Your task to perform on an android device: Search for seafood restaurants on Google Maps Image 0: 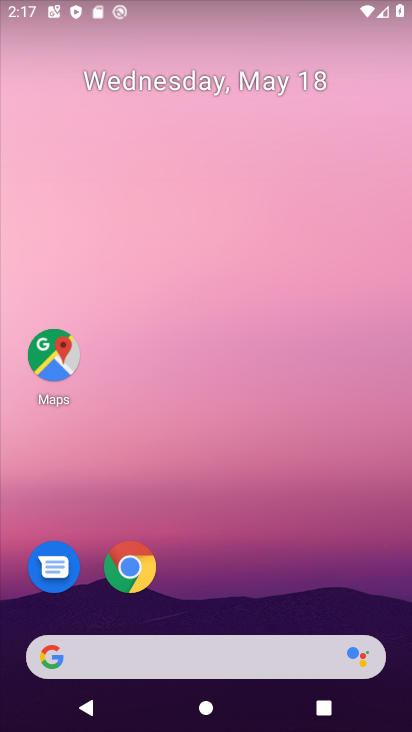
Step 0: click (53, 360)
Your task to perform on an android device: Search for seafood restaurants on Google Maps Image 1: 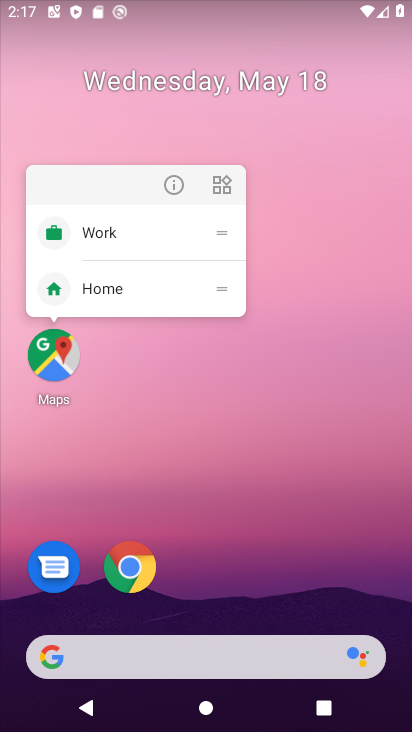
Step 1: click (53, 360)
Your task to perform on an android device: Search for seafood restaurants on Google Maps Image 2: 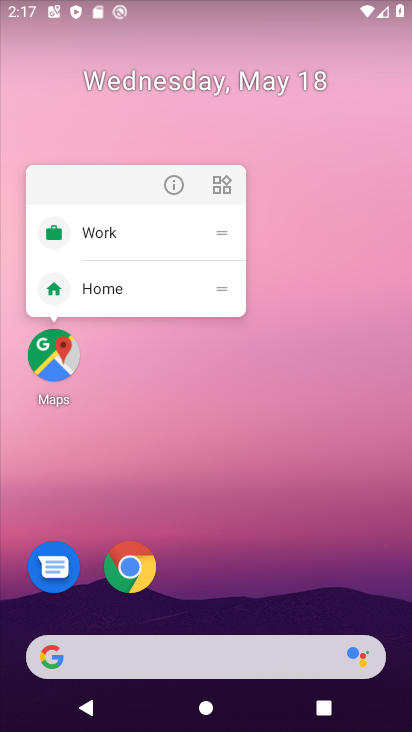
Step 2: click (53, 368)
Your task to perform on an android device: Search for seafood restaurants on Google Maps Image 3: 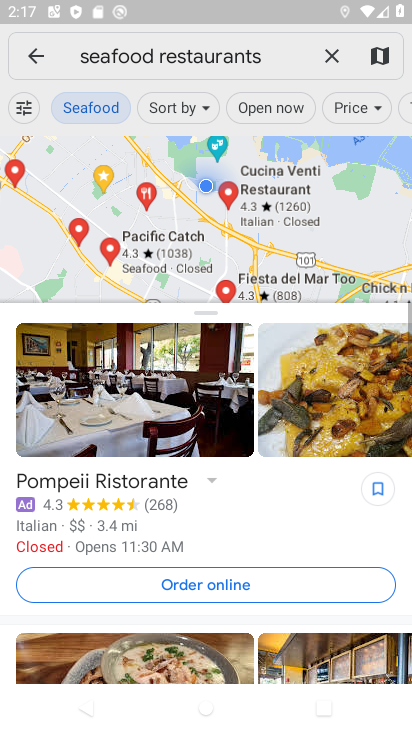
Step 3: task complete